Your task to perform on an android device: What's on my calendar tomorrow? Image 0: 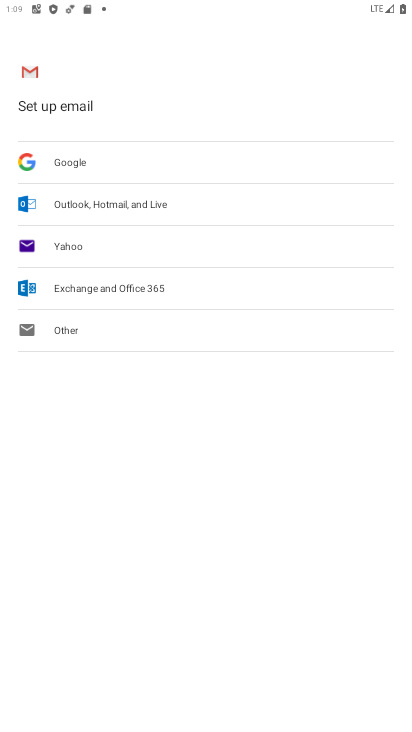
Step 0: press back button
Your task to perform on an android device: What's on my calendar tomorrow? Image 1: 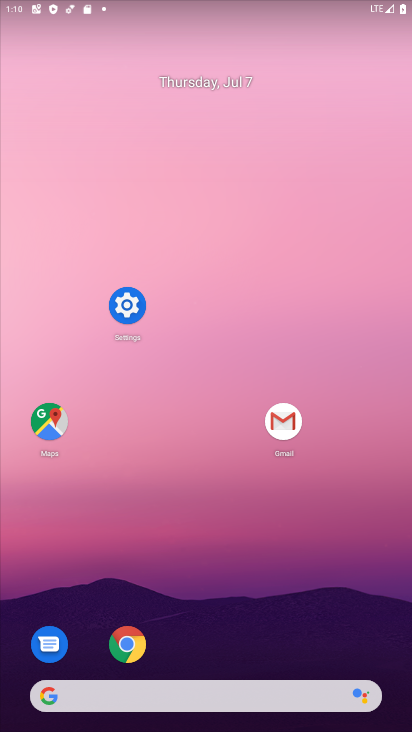
Step 1: drag from (375, 458) to (289, 22)
Your task to perform on an android device: What's on my calendar tomorrow? Image 2: 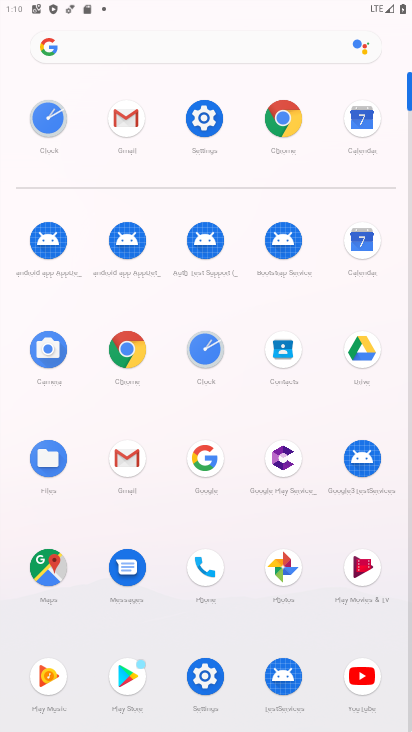
Step 2: click (346, 225)
Your task to perform on an android device: What's on my calendar tomorrow? Image 3: 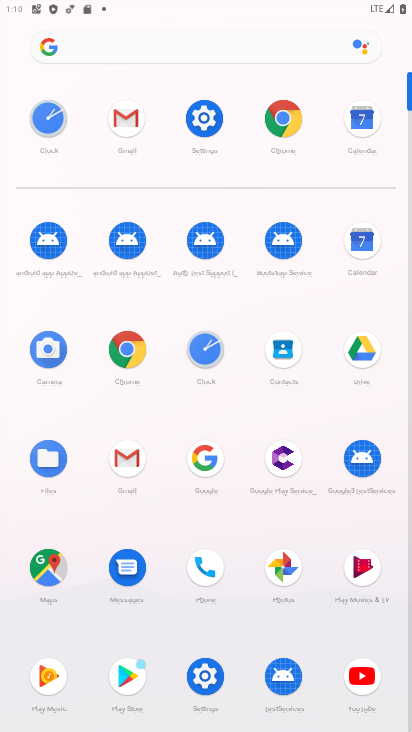
Step 3: click (359, 242)
Your task to perform on an android device: What's on my calendar tomorrow? Image 4: 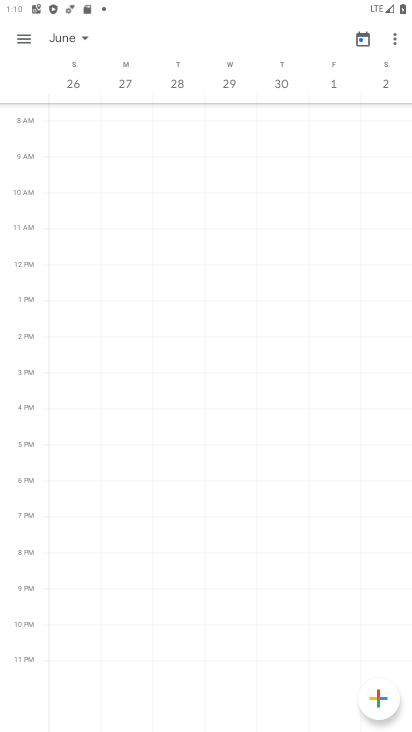
Step 4: click (84, 39)
Your task to perform on an android device: What's on my calendar tomorrow? Image 5: 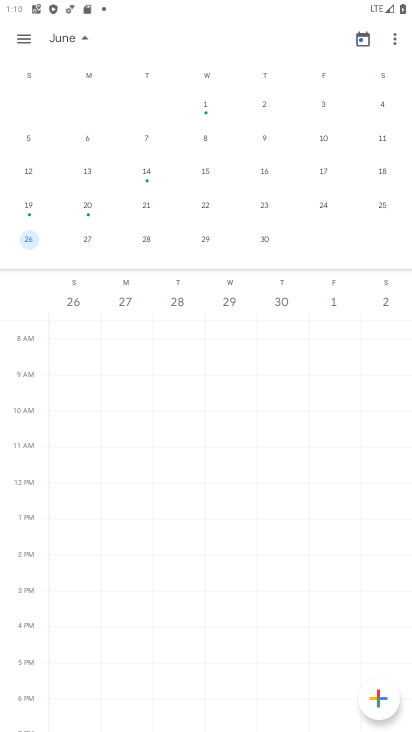
Step 5: drag from (380, 150) to (3, 200)
Your task to perform on an android device: What's on my calendar tomorrow? Image 6: 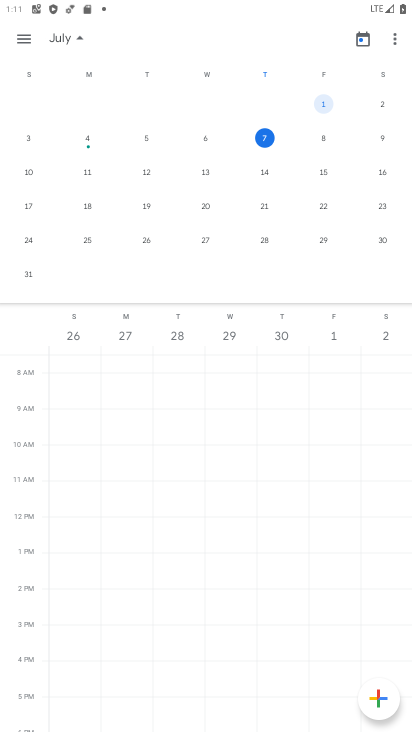
Step 6: click (322, 136)
Your task to perform on an android device: What's on my calendar tomorrow? Image 7: 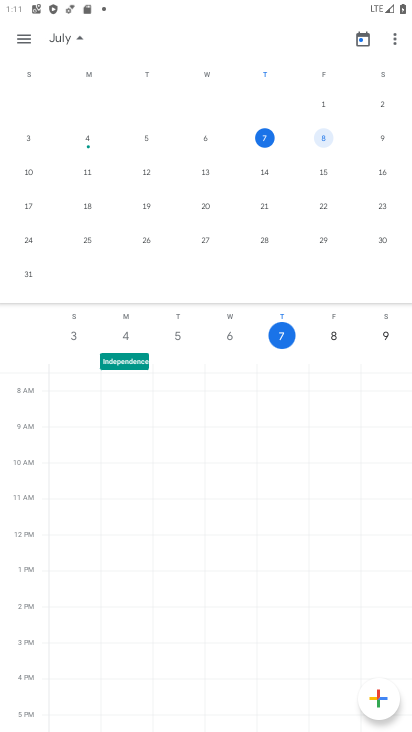
Step 7: task complete